Your task to perform on an android device: Open settings on Google Maps Image 0: 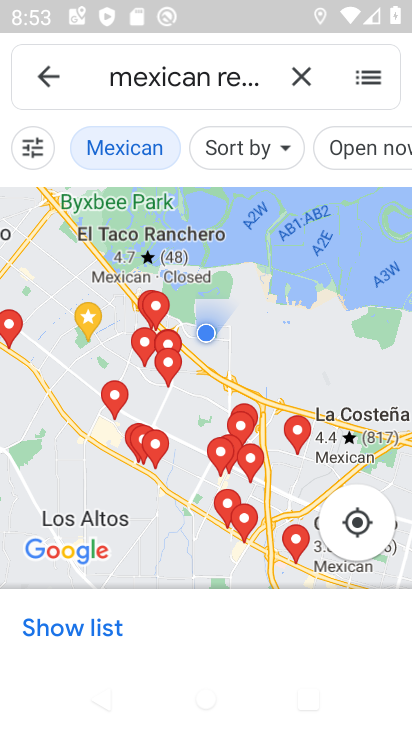
Step 0: click (30, 80)
Your task to perform on an android device: Open settings on Google Maps Image 1: 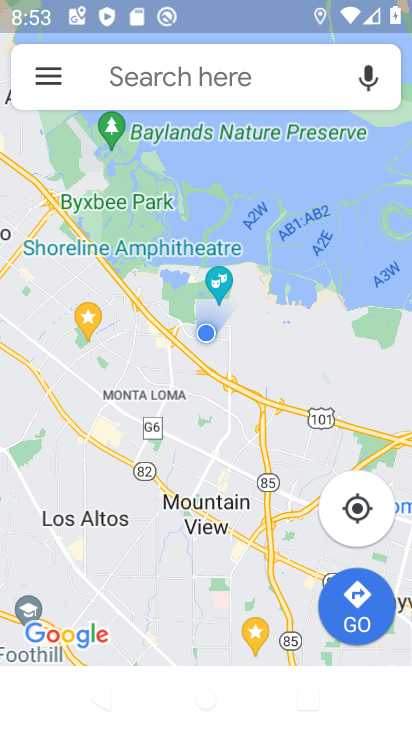
Step 1: click (52, 85)
Your task to perform on an android device: Open settings on Google Maps Image 2: 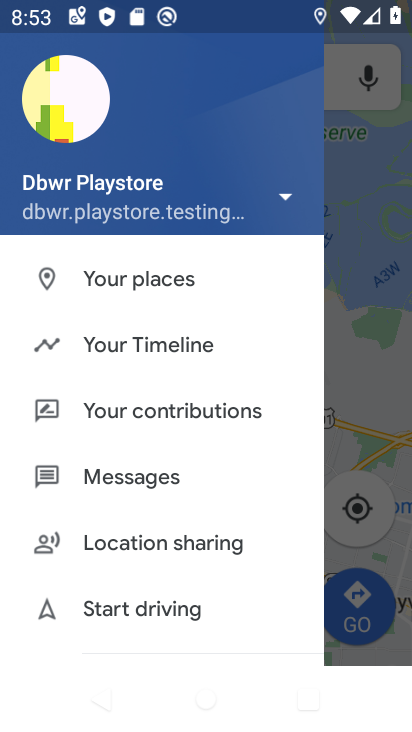
Step 2: drag from (159, 558) to (219, 402)
Your task to perform on an android device: Open settings on Google Maps Image 3: 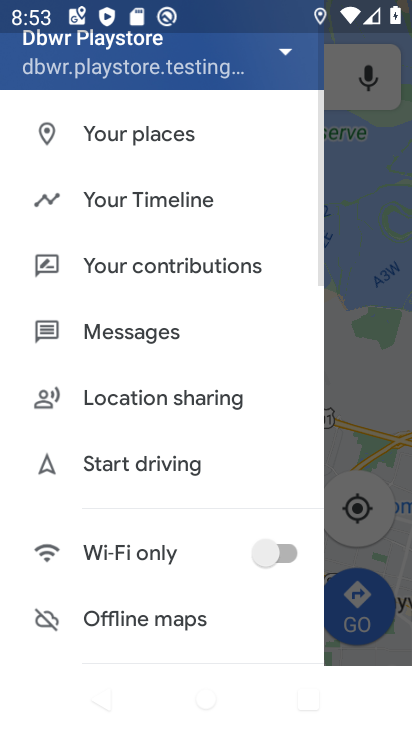
Step 3: drag from (179, 575) to (180, 503)
Your task to perform on an android device: Open settings on Google Maps Image 4: 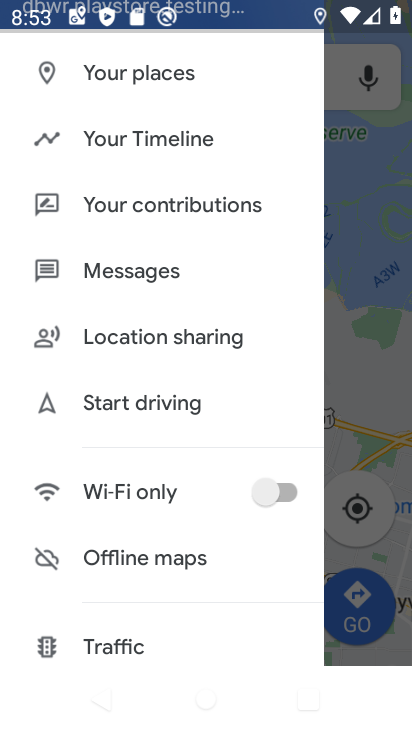
Step 4: drag from (148, 588) to (138, 550)
Your task to perform on an android device: Open settings on Google Maps Image 5: 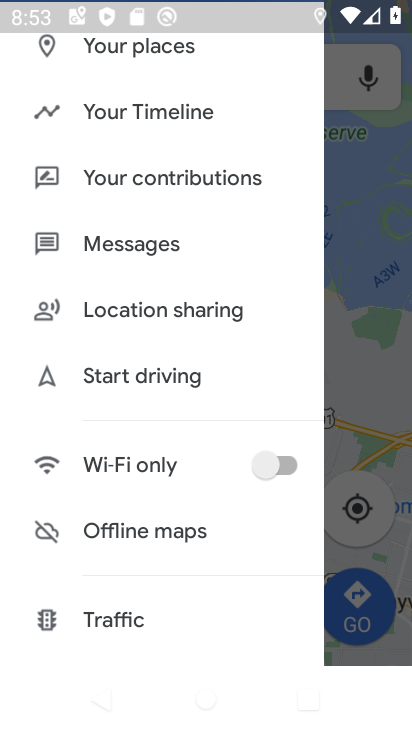
Step 5: drag from (148, 568) to (170, 432)
Your task to perform on an android device: Open settings on Google Maps Image 6: 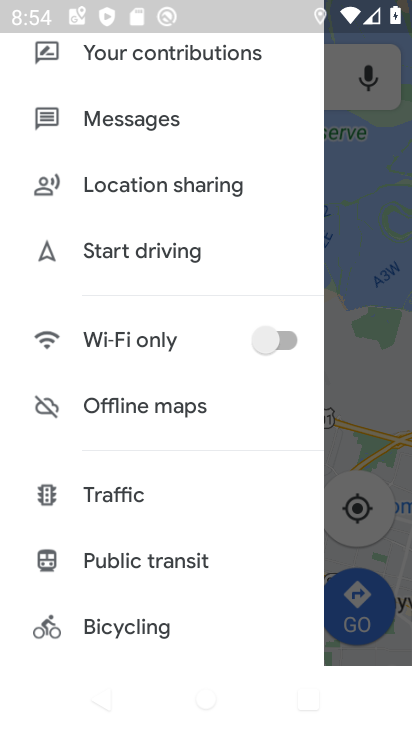
Step 6: drag from (147, 492) to (161, 320)
Your task to perform on an android device: Open settings on Google Maps Image 7: 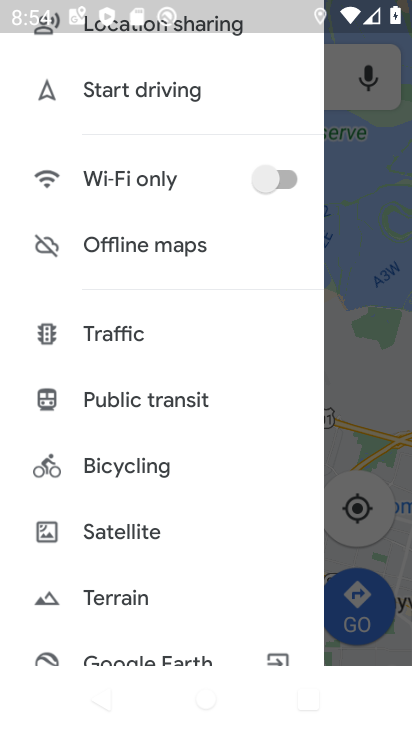
Step 7: drag from (150, 508) to (196, 234)
Your task to perform on an android device: Open settings on Google Maps Image 8: 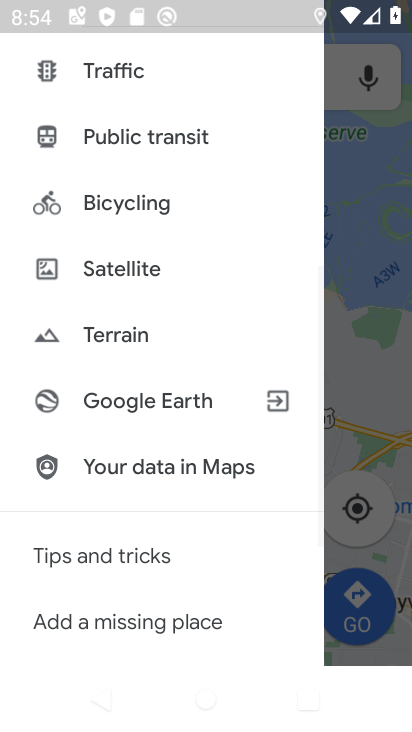
Step 8: drag from (167, 483) to (167, 438)
Your task to perform on an android device: Open settings on Google Maps Image 9: 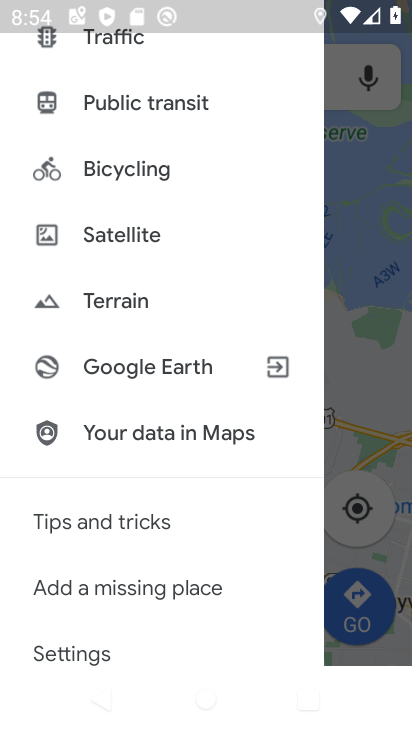
Step 9: click (94, 644)
Your task to perform on an android device: Open settings on Google Maps Image 10: 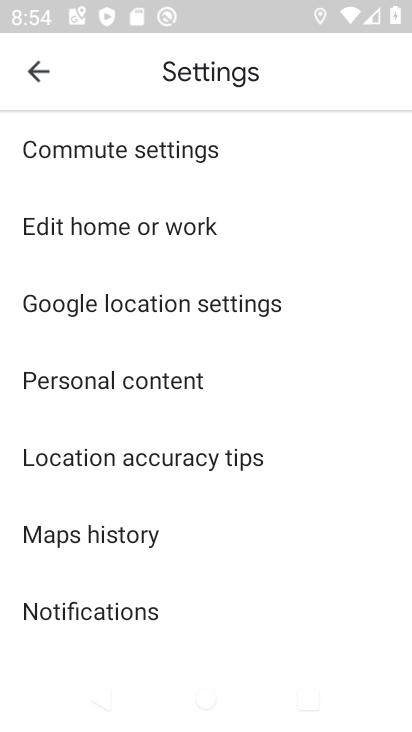
Step 10: task complete